Your task to perform on an android device: turn on improve location accuracy Image 0: 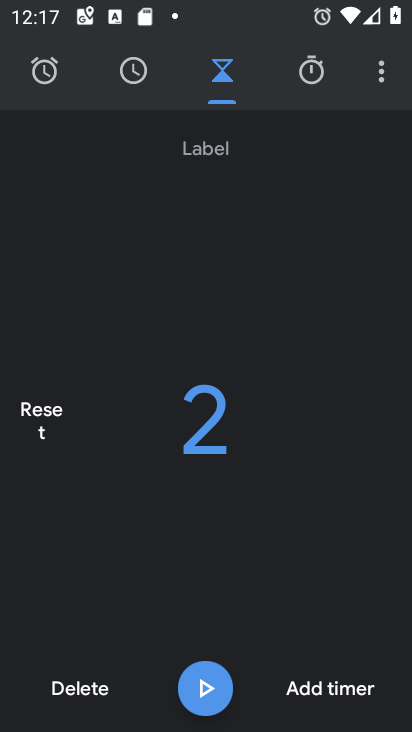
Step 0: press home button
Your task to perform on an android device: turn on improve location accuracy Image 1: 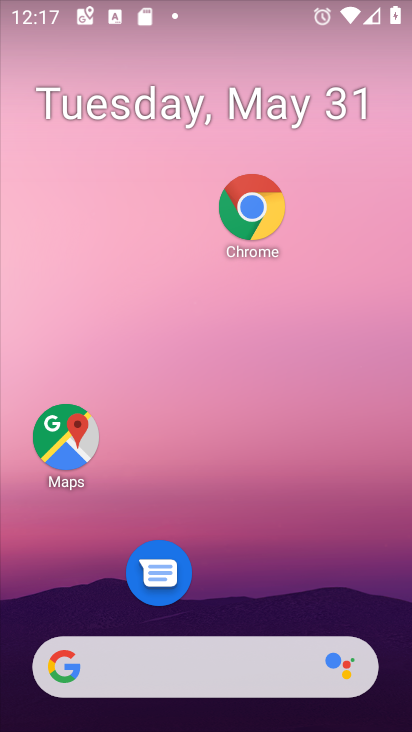
Step 1: drag from (201, 685) to (220, 170)
Your task to perform on an android device: turn on improve location accuracy Image 2: 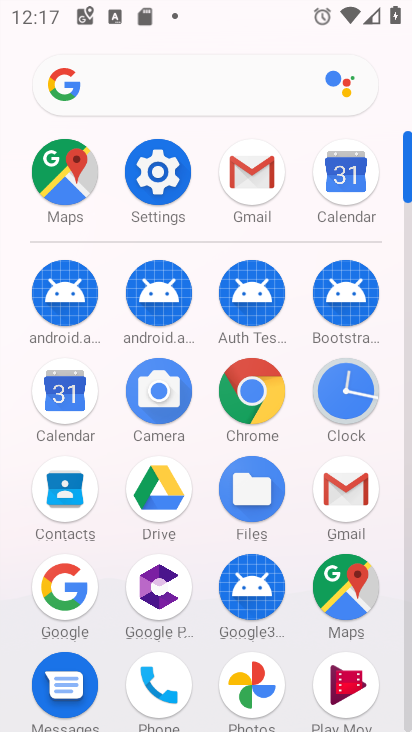
Step 2: click (165, 171)
Your task to perform on an android device: turn on improve location accuracy Image 3: 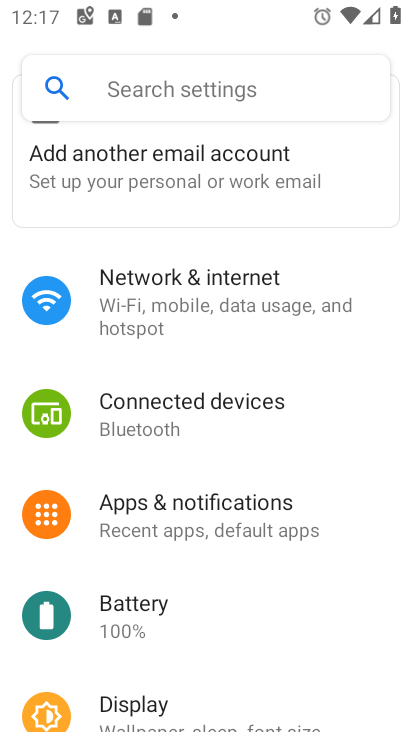
Step 3: drag from (166, 588) to (196, 231)
Your task to perform on an android device: turn on improve location accuracy Image 4: 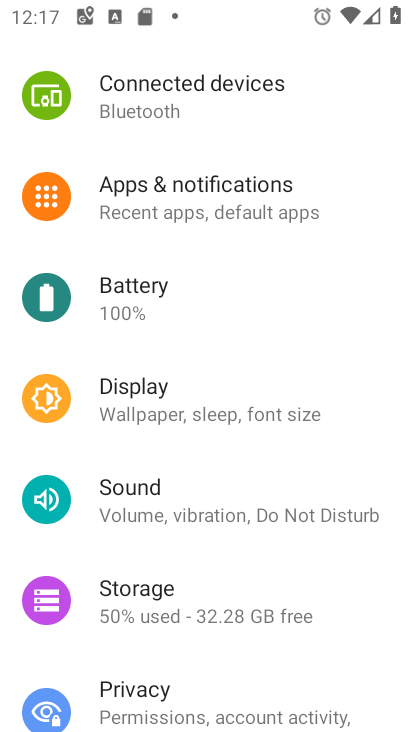
Step 4: drag from (187, 503) to (212, 226)
Your task to perform on an android device: turn on improve location accuracy Image 5: 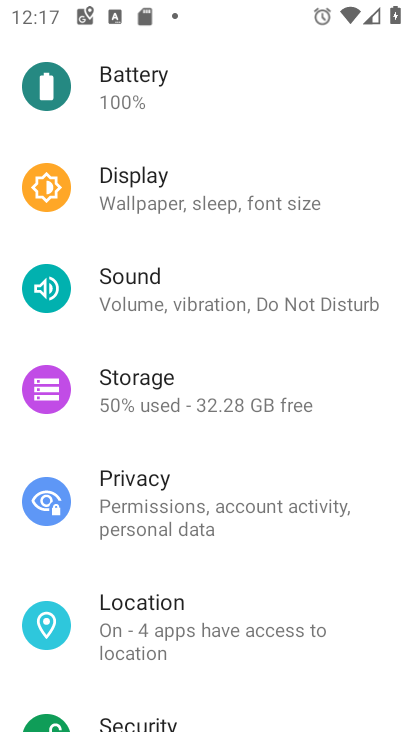
Step 5: click (208, 616)
Your task to perform on an android device: turn on improve location accuracy Image 6: 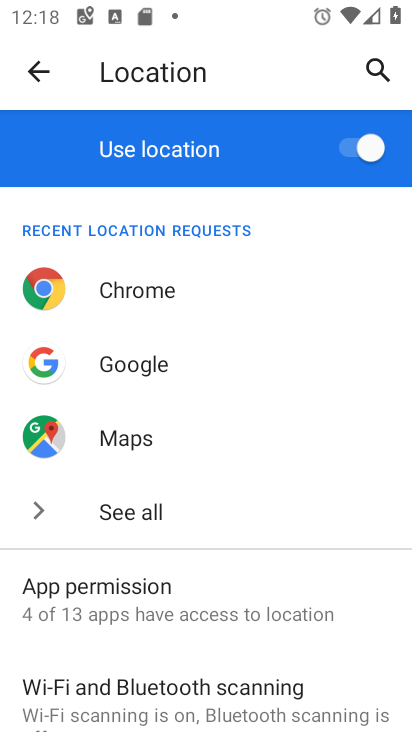
Step 6: drag from (181, 622) to (237, 257)
Your task to perform on an android device: turn on improve location accuracy Image 7: 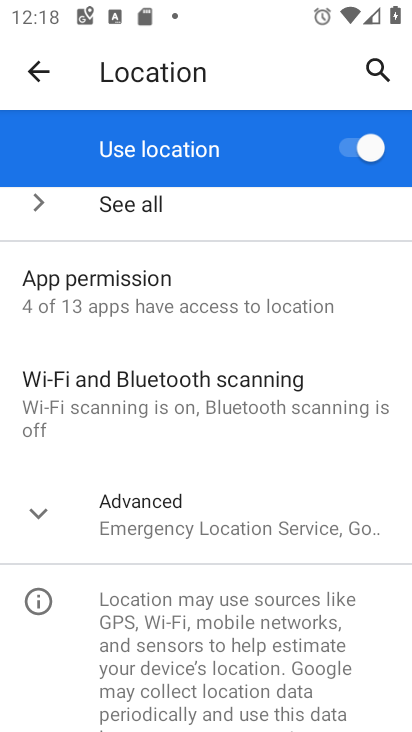
Step 7: click (202, 511)
Your task to perform on an android device: turn on improve location accuracy Image 8: 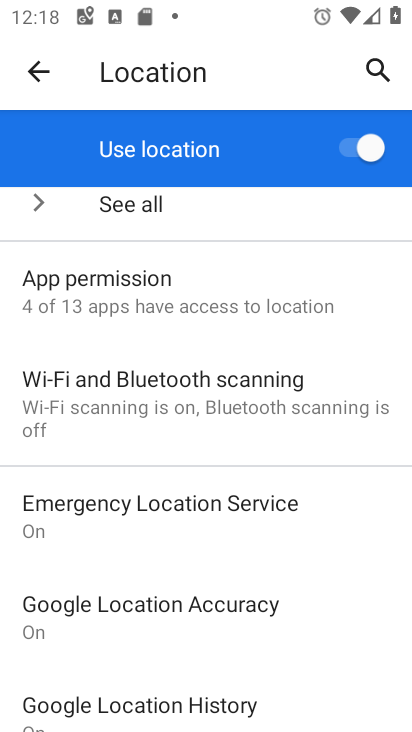
Step 8: drag from (193, 620) to (235, 282)
Your task to perform on an android device: turn on improve location accuracy Image 9: 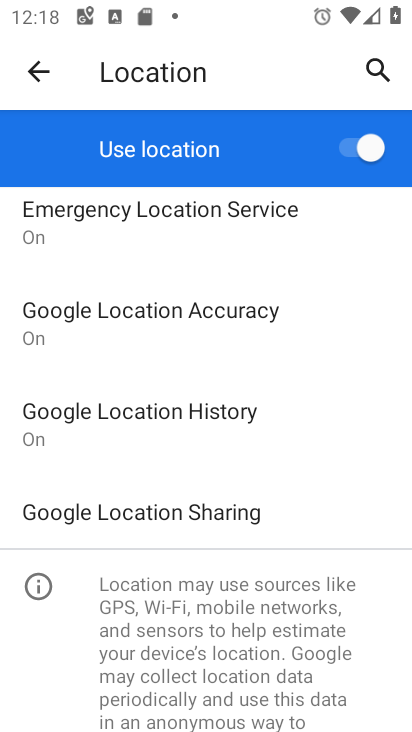
Step 9: click (235, 313)
Your task to perform on an android device: turn on improve location accuracy Image 10: 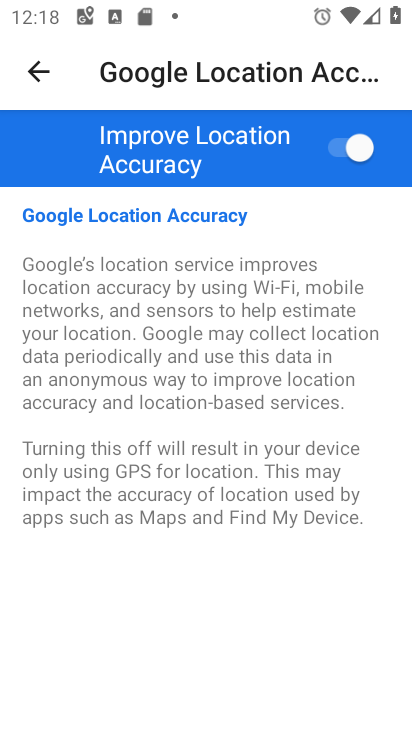
Step 10: task complete